Your task to perform on an android device: see tabs open on other devices in the chrome app Image 0: 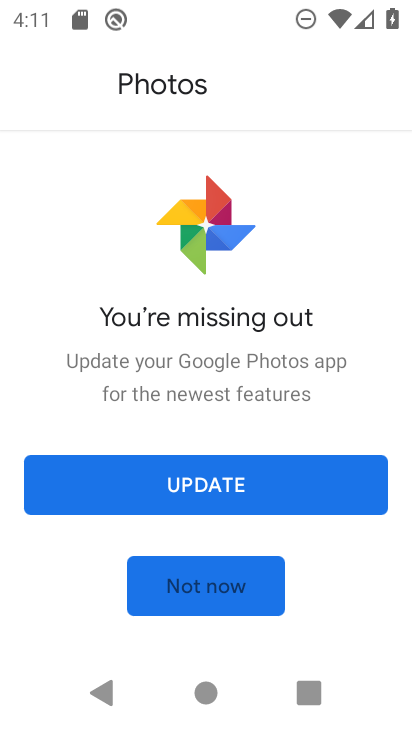
Step 0: press home button
Your task to perform on an android device: see tabs open on other devices in the chrome app Image 1: 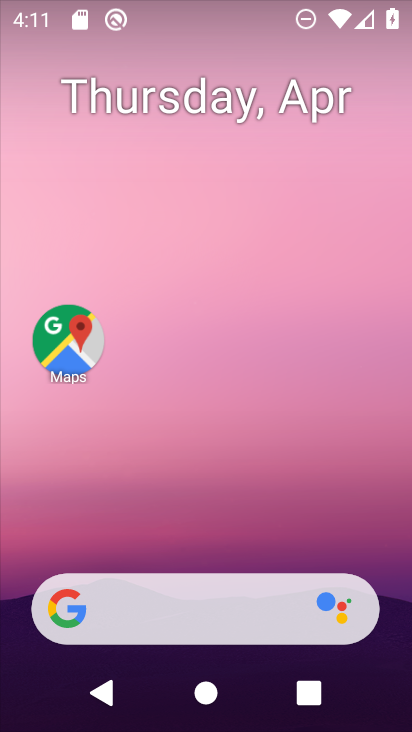
Step 1: drag from (228, 600) to (216, 169)
Your task to perform on an android device: see tabs open on other devices in the chrome app Image 2: 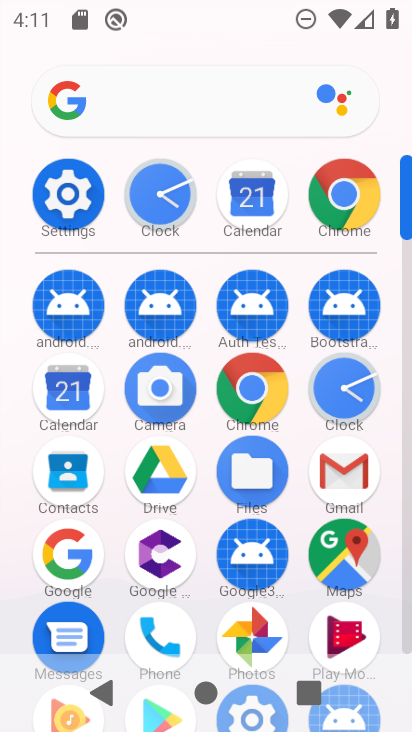
Step 2: click (338, 194)
Your task to perform on an android device: see tabs open on other devices in the chrome app Image 3: 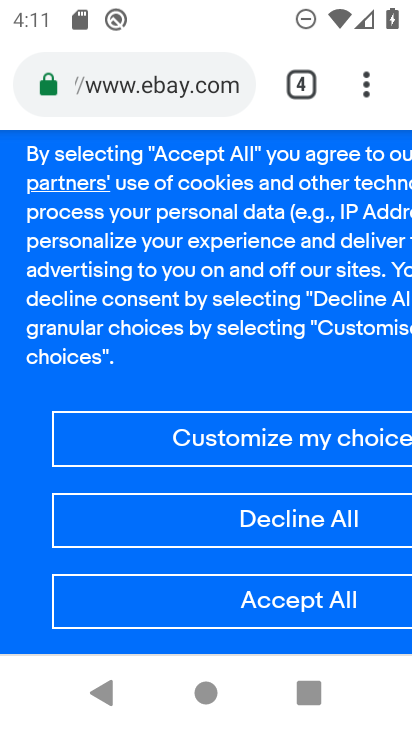
Step 3: task complete